Your task to perform on an android device: empty trash in the gmail app Image 0: 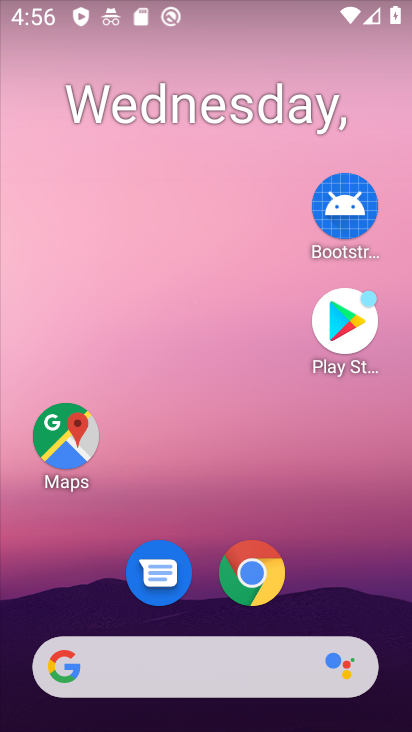
Step 0: click (241, 570)
Your task to perform on an android device: empty trash in the gmail app Image 1: 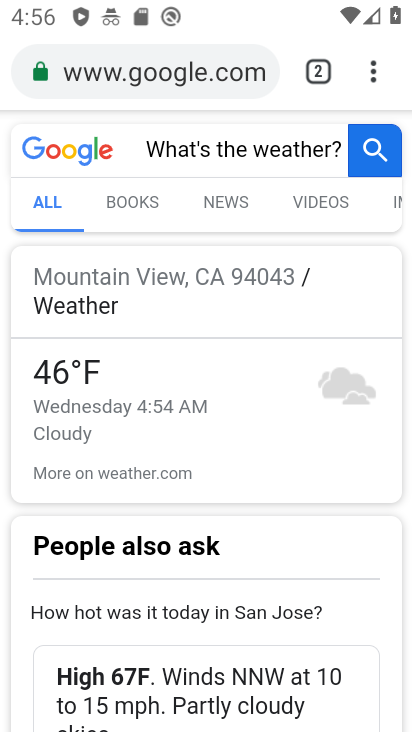
Step 1: press home button
Your task to perform on an android device: empty trash in the gmail app Image 2: 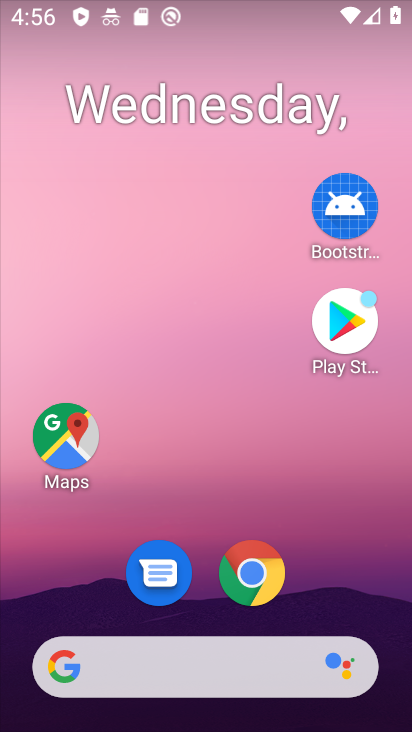
Step 2: drag from (375, 550) to (292, 81)
Your task to perform on an android device: empty trash in the gmail app Image 3: 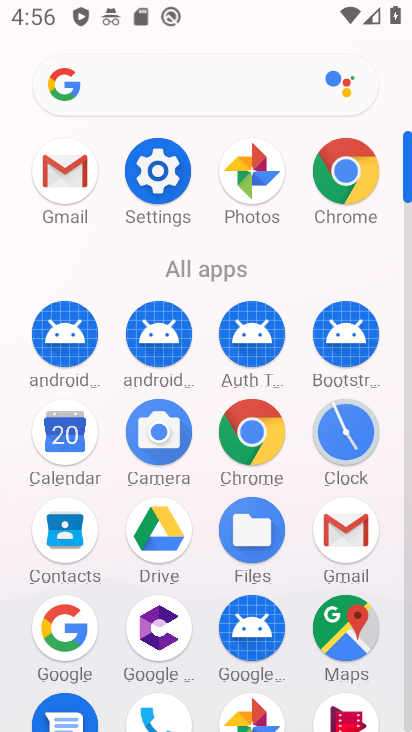
Step 3: click (73, 182)
Your task to perform on an android device: empty trash in the gmail app Image 4: 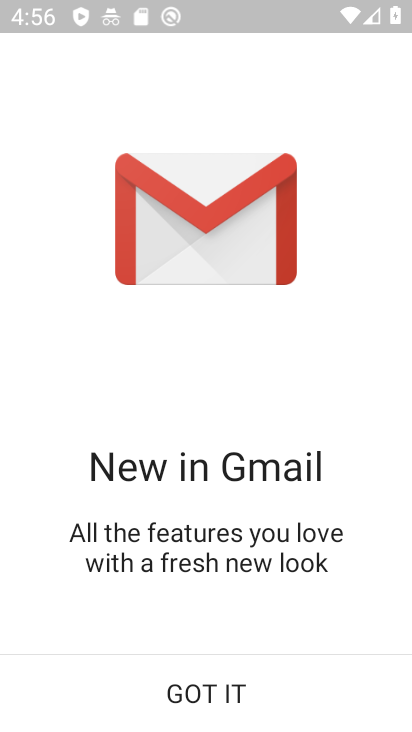
Step 4: click (279, 692)
Your task to perform on an android device: empty trash in the gmail app Image 5: 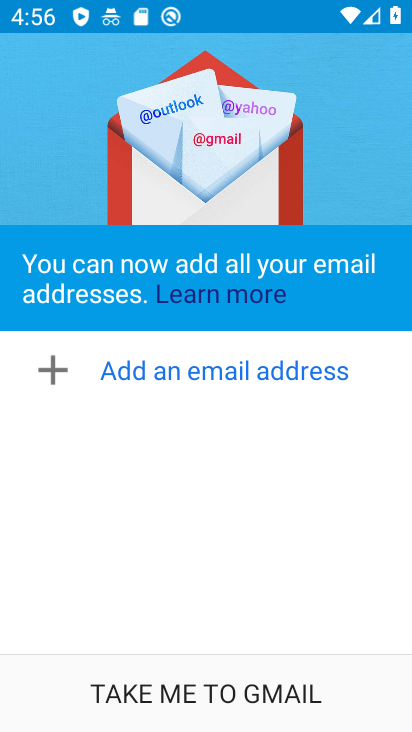
Step 5: click (277, 690)
Your task to perform on an android device: empty trash in the gmail app Image 6: 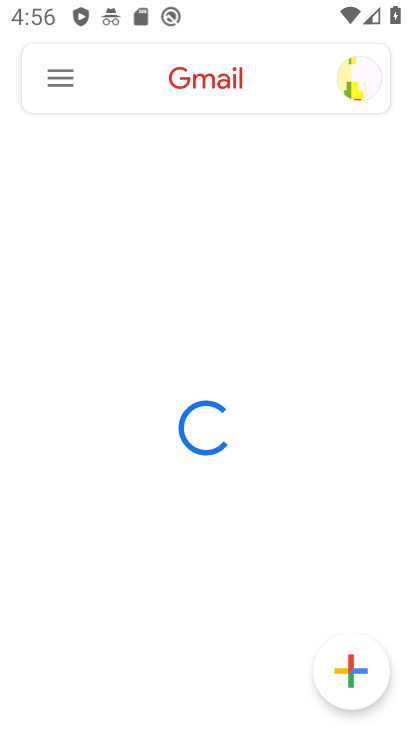
Step 6: click (50, 81)
Your task to perform on an android device: empty trash in the gmail app Image 7: 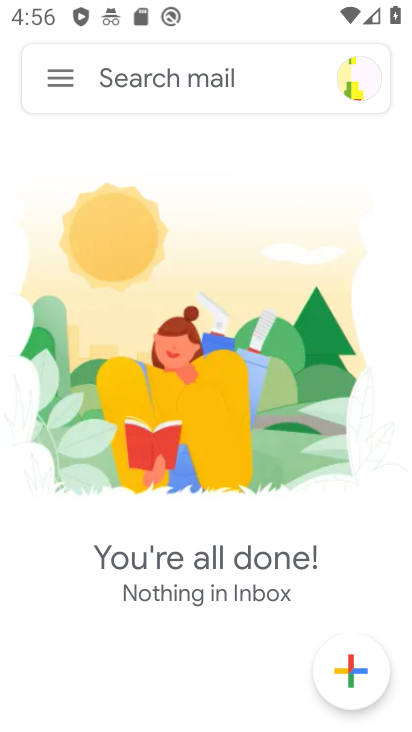
Step 7: click (47, 76)
Your task to perform on an android device: empty trash in the gmail app Image 8: 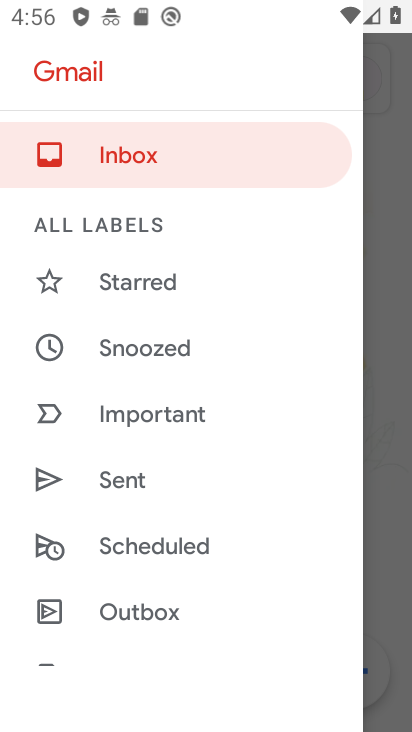
Step 8: drag from (309, 664) to (216, 248)
Your task to perform on an android device: empty trash in the gmail app Image 9: 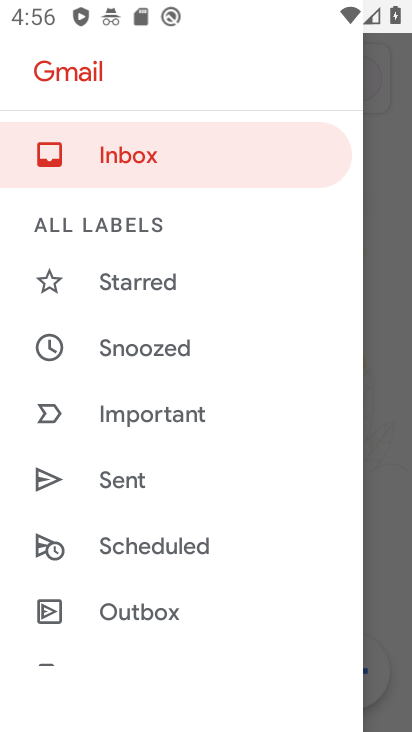
Step 9: drag from (167, 618) to (174, 6)
Your task to perform on an android device: empty trash in the gmail app Image 10: 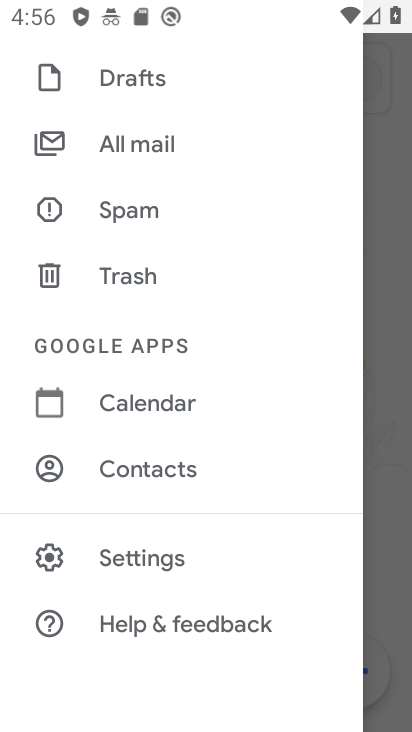
Step 10: click (161, 287)
Your task to perform on an android device: empty trash in the gmail app Image 11: 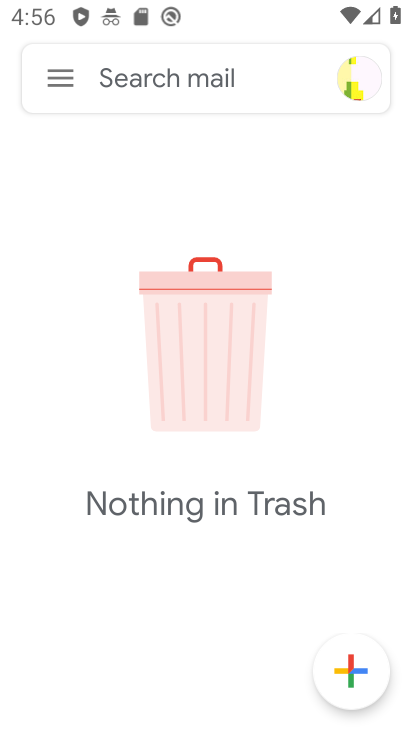
Step 11: task complete